Your task to perform on an android device: What's the weather going to be this weekend? Image 0: 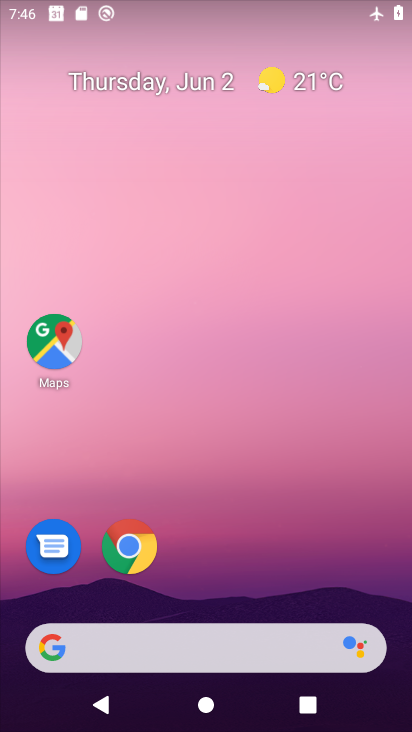
Step 0: drag from (234, 514) to (256, 219)
Your task to perform on an android device: What's the weather going to be this weekend? Image 1: 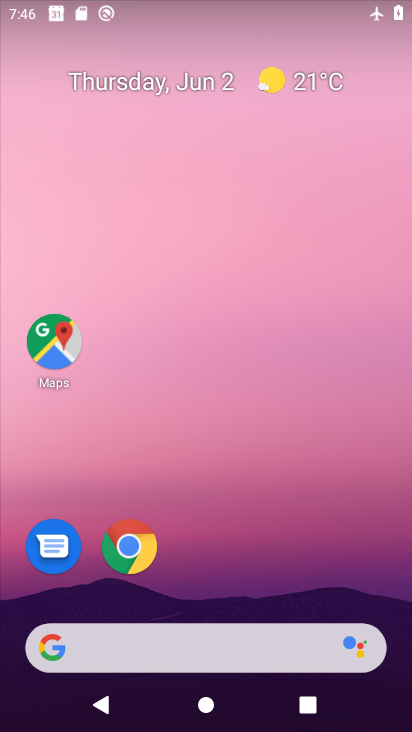
Step 1: drag from (274, 535) to (273, 189)
Your task to perform on an android device: What's the weather going to be this weekend? Image 2: 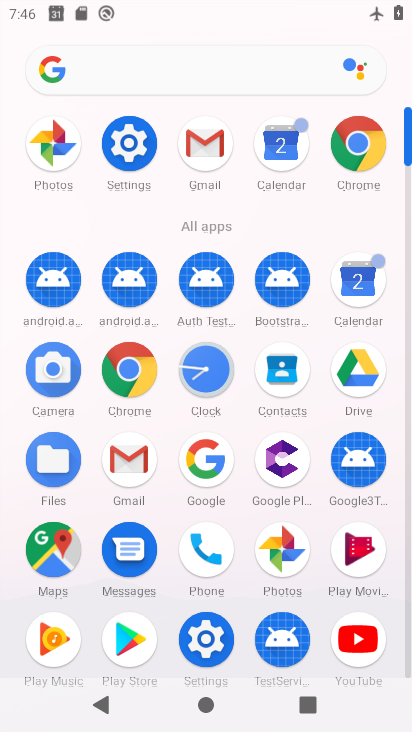
Step 2: click (135, 359)
Your task to perform on an android device: What's the weather going to be this weekend? Image 3: 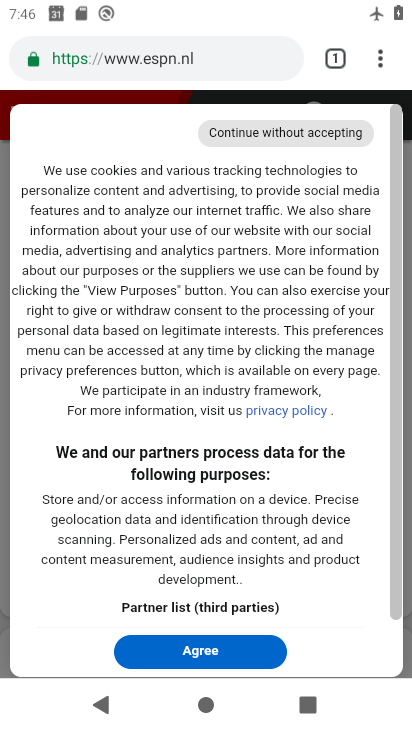
Step 3: click (191, 55)
Your task to perform on an android device: What's the weather going to be this weekend? Image 4: 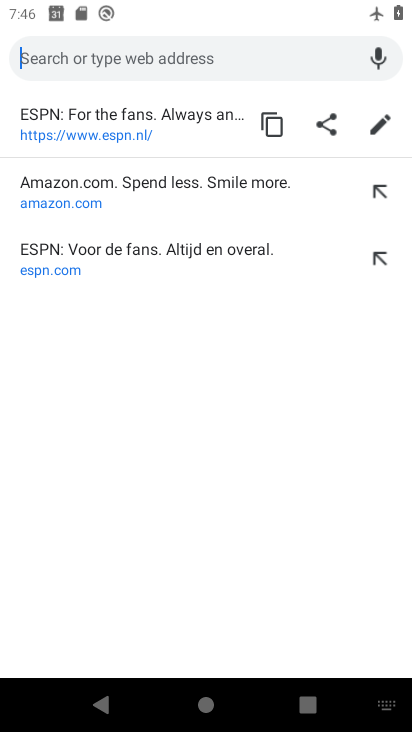
Step 4: type "what's the weather going to be this weekend "
Your task to perform on an android device: What's the weather going to be this weekend? Image 5: 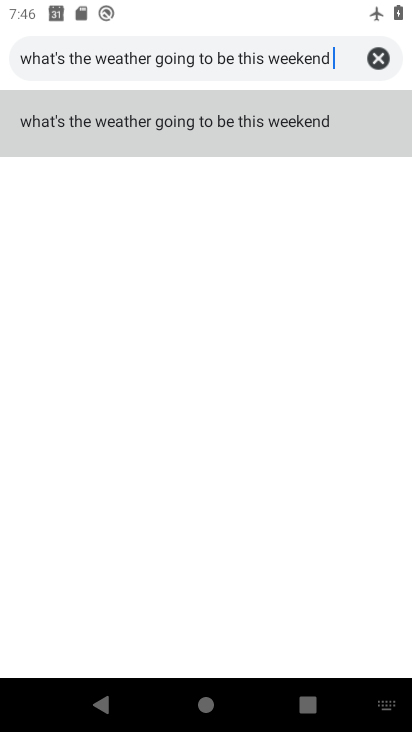
Step 5: click (151, 125)
Your task to perform on an android device: What's the weather going to be this weekend? Image 6: 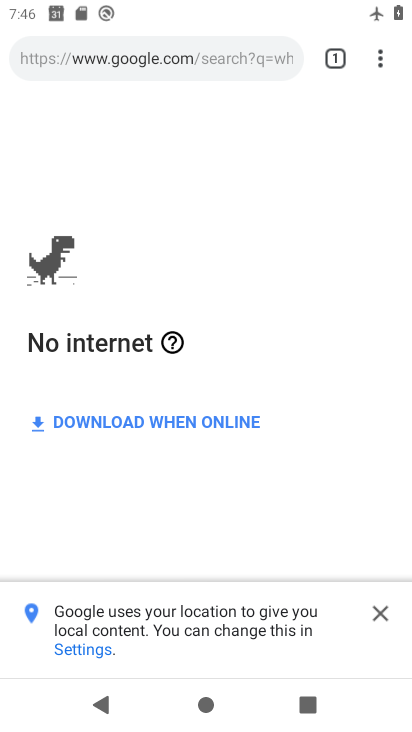
Step 6: task complete